Your task to perform on an android device: Open Maps and search for coffee Image 0: 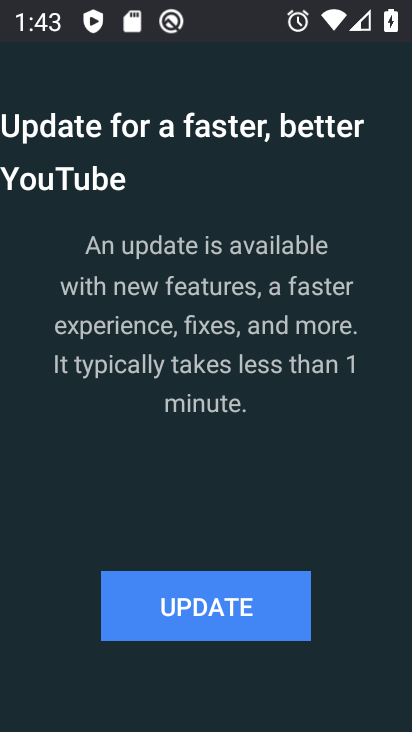
Step 0: press home button
Your task to perform on an android device: Open Maps and search for coffee Image 1: 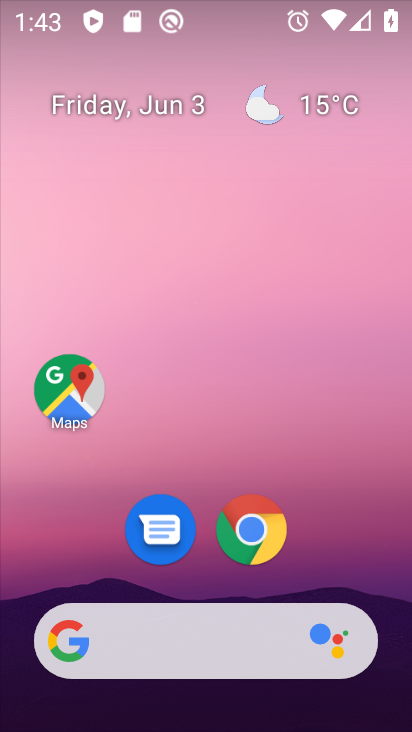
Step 1: drag from (386, 575) to (361, 178)
Your task to perform on an android device: Open Maps and search for coffee Image 2: 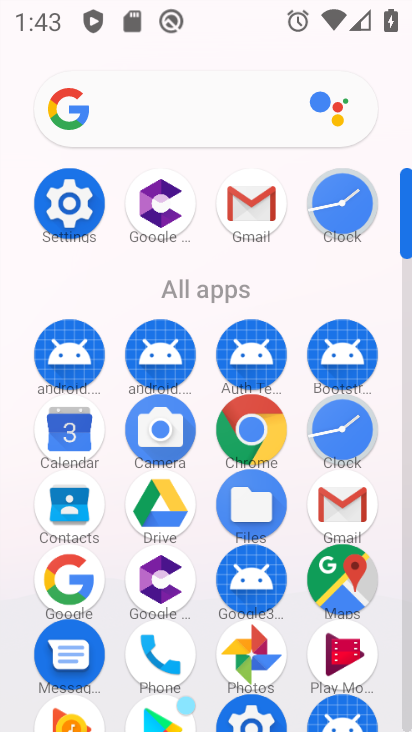
Step 2: click (362, 572)
Your task to perform on an android device: Open Maps and search for coffee Image 3: 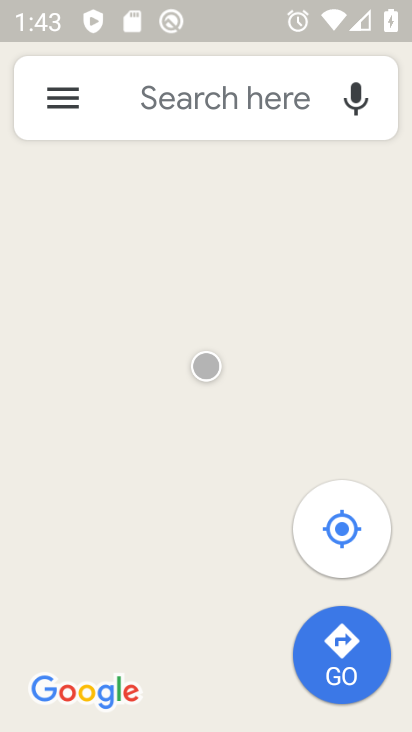
Step 3: click (211, 108)
Your task to perform on an android device: Open Maps and search for coffee Image 4: 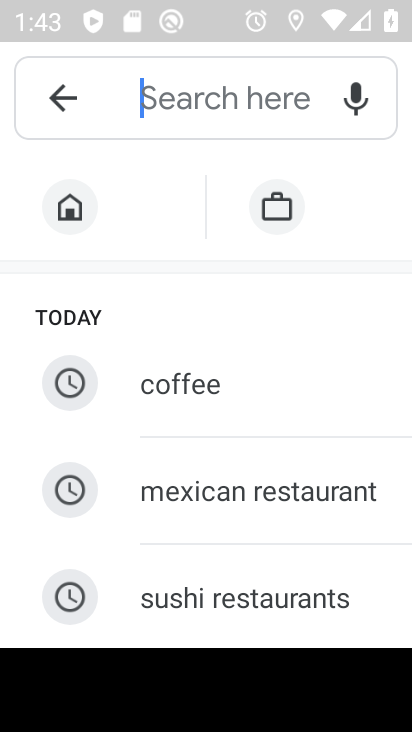
Step 4: type "coffee"
Your task to perform on an android device: Open Maps and search for coffee Image 5: 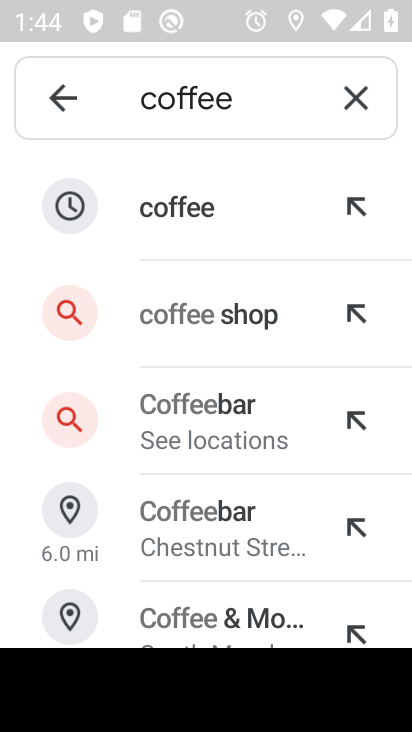
Step 5: click (182, 206)
Your task to perform on an android device: Open Maps and search for coffee Image 6: 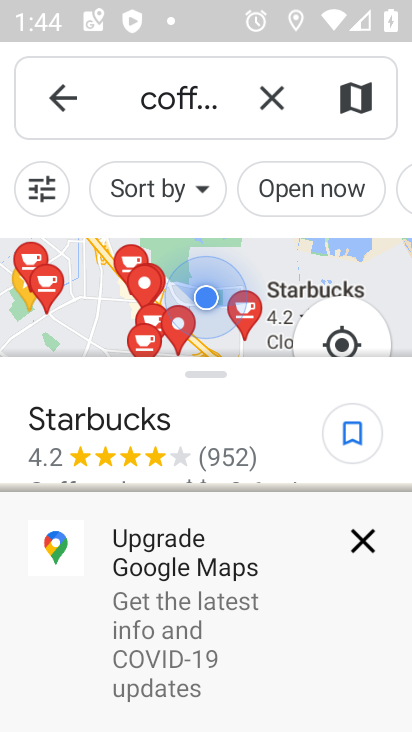
Step 6: task complete